Your task to perform on an android device: change the clock display to analog Image 0: 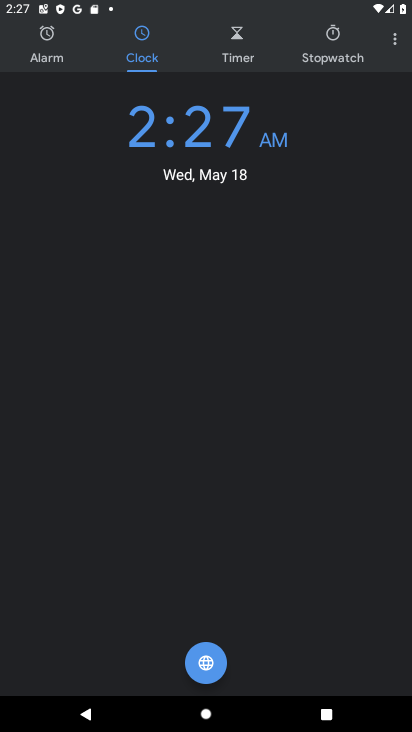
Step 0: press home button
Your task to perform on an android device: change the clock display to analog Image 1: 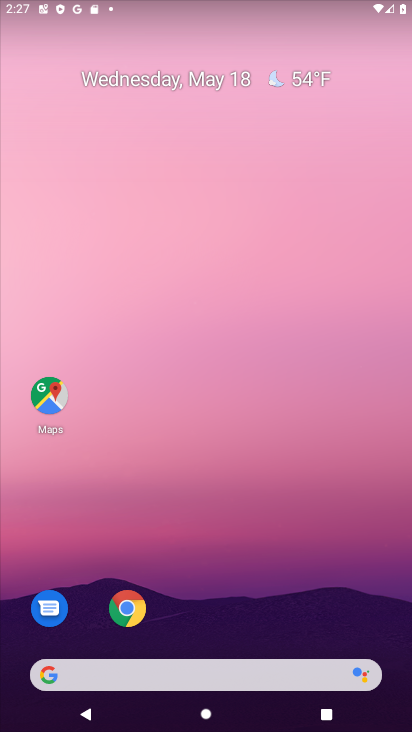
Step 1: drag from (308, 612) to (328, 54)
Your task to perform on an android device: change the clock display to analog Image 2: 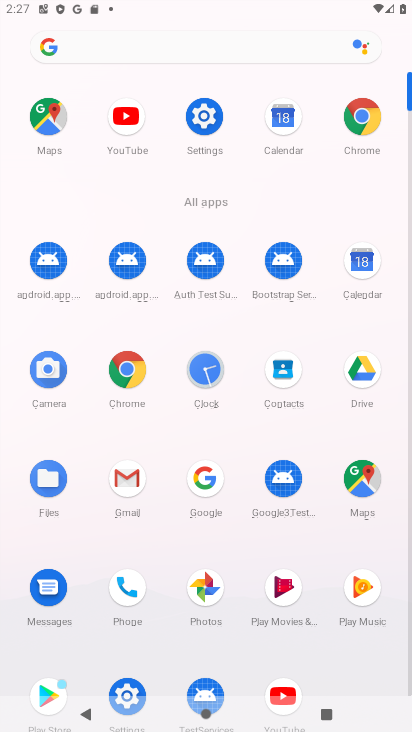
Step 2: click (212, 359)
Your task to perform on an android device: change the clock display to analog Image 3: 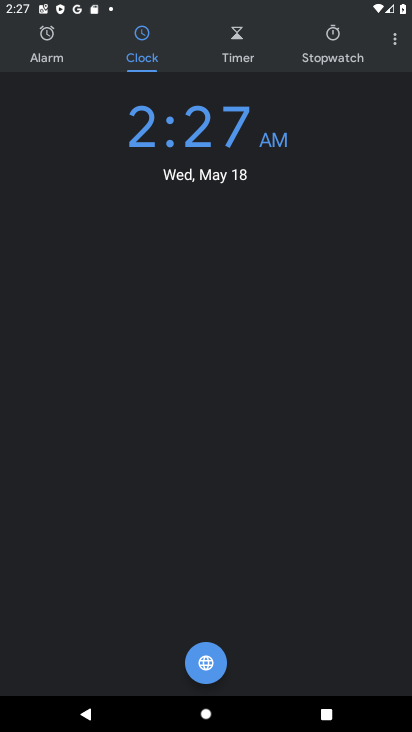
Step 3: click (388, 41)
Your task to perform on an android device: change the clock display to analog Image 4: 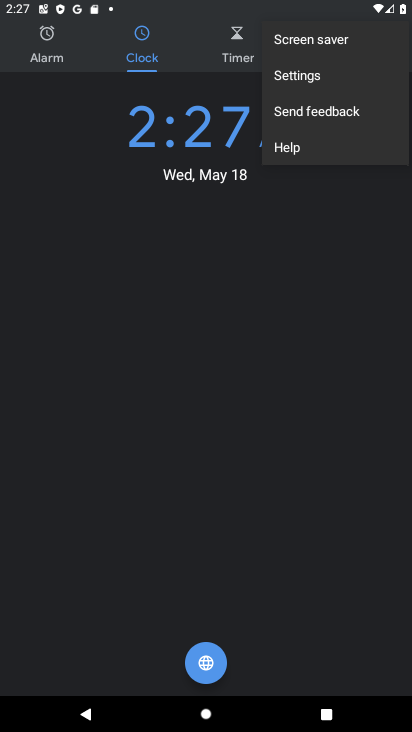
Step 4: click (331, 82)
Your task to perform on an android device: change the clock display to analog Image 5: 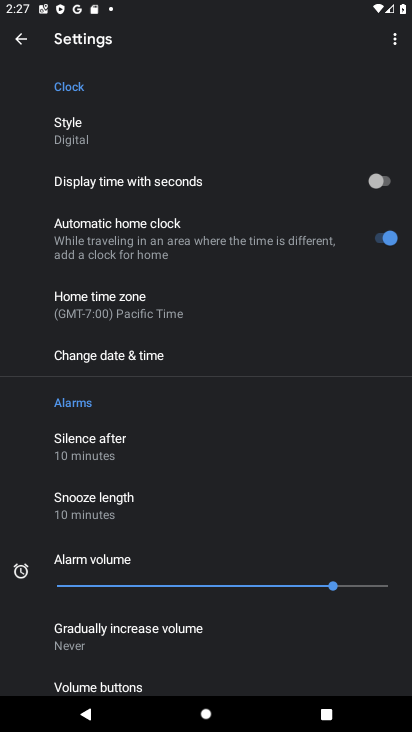
Step 5: click (79, 135)
Your task to perform on an android device: change the clock display to analog Image 6: 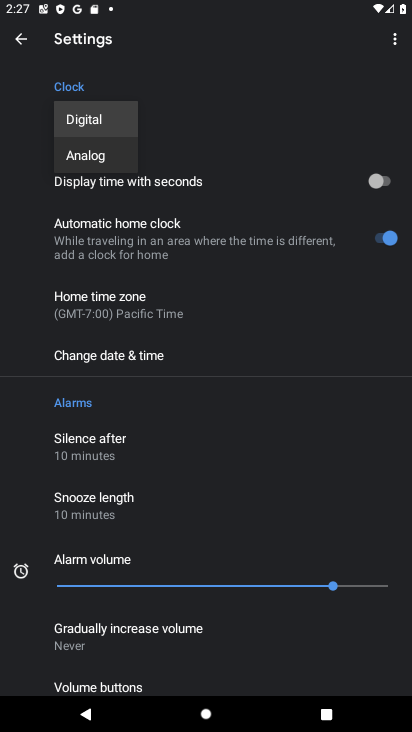
Step 6: click (96, 157)
Your task to perform on an android device: change the clock display to analog Image 7: 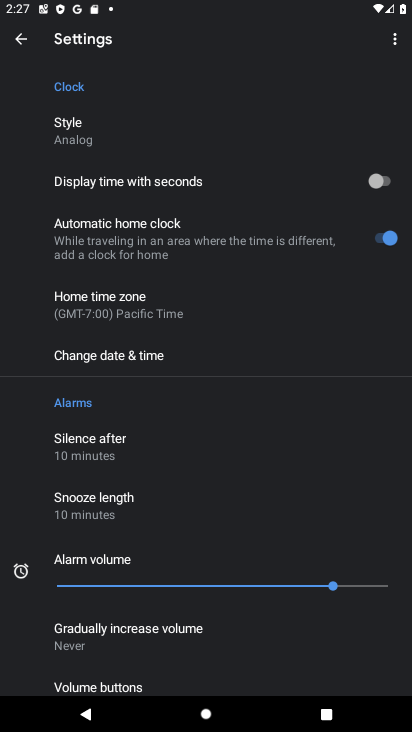
Step 7: task complete